Your task to perform on an android device: check the backup settings in the google photos Image 0: 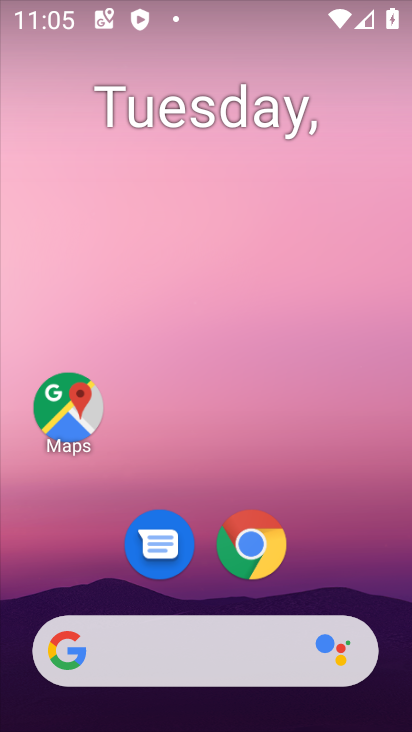
Step 0: drag from (391, 668) to (312, 13)
Your task to perform on an android device: check the backup settings in the google photos Image 1: 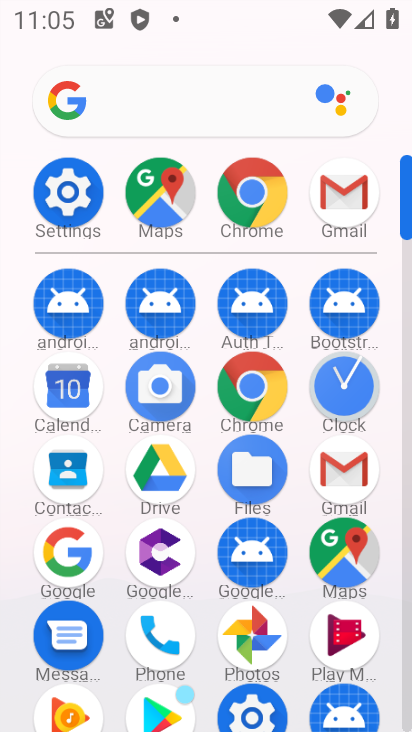
Step 1: click (255, 643)
Your task to perform on an android device: check the backup settings in the google photos Image 2: 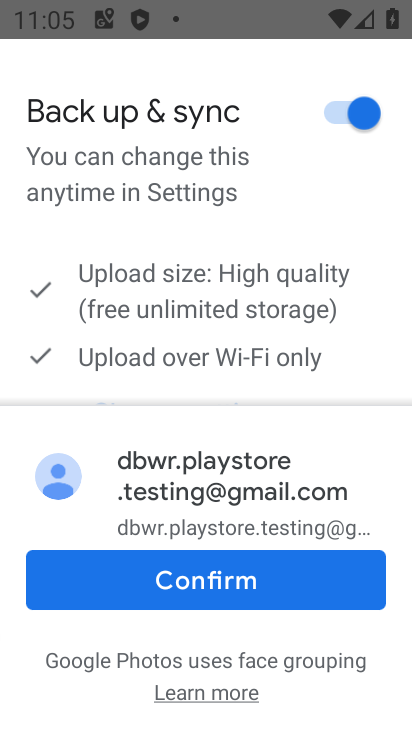
Step 2: click (253, 593)
Your task to perform on an android device: check the backup settings in the google photos Image 3: 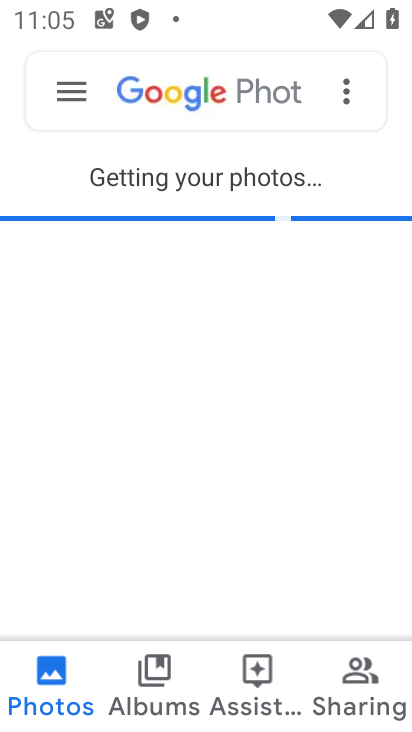
Step 3: click (48, 91)
Your task to perform on an android device: check the backup settings in the google photos Image 4: 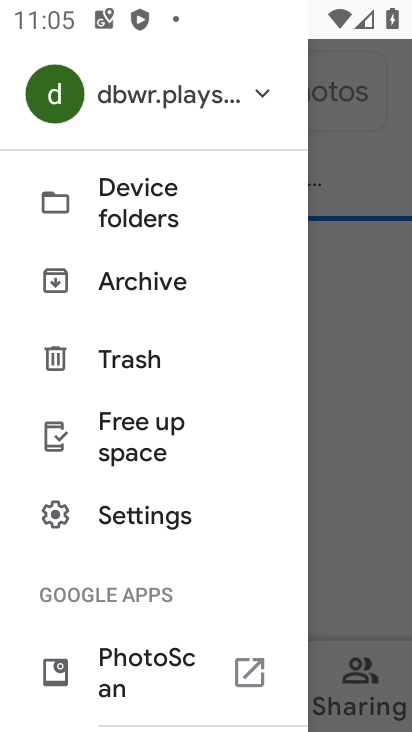
Step 4: click (154, 524)
Your task to perform on an android device: check the backup settings in the google photos Image 5: 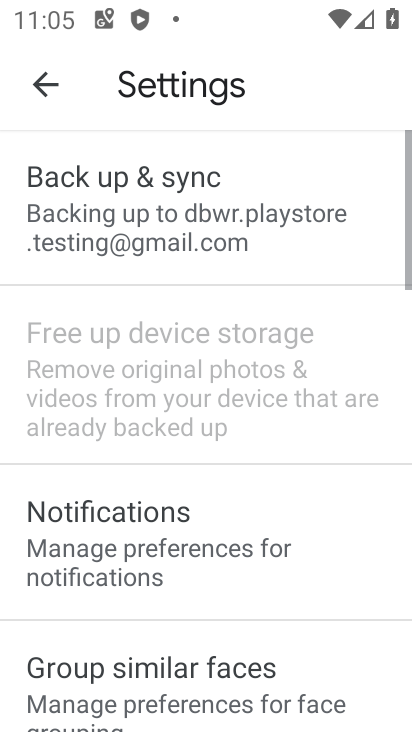
Step 5: click (160, 224)
Your task to perform on an android device: check the backup settings in the google photos Image 6: 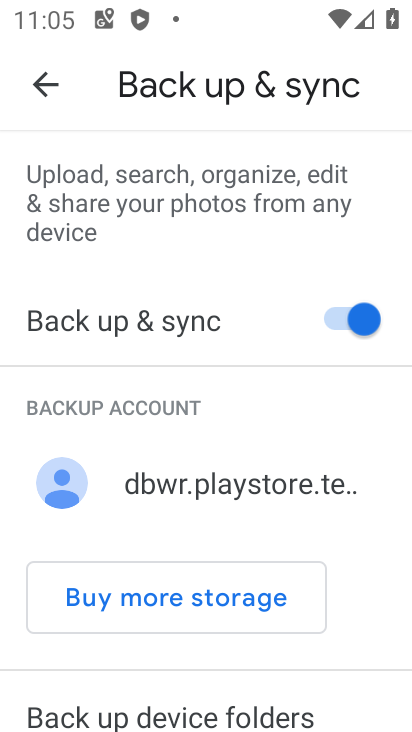
Step 6: task complete